Your task to perform on an android device: turn notification dots off Image 0: 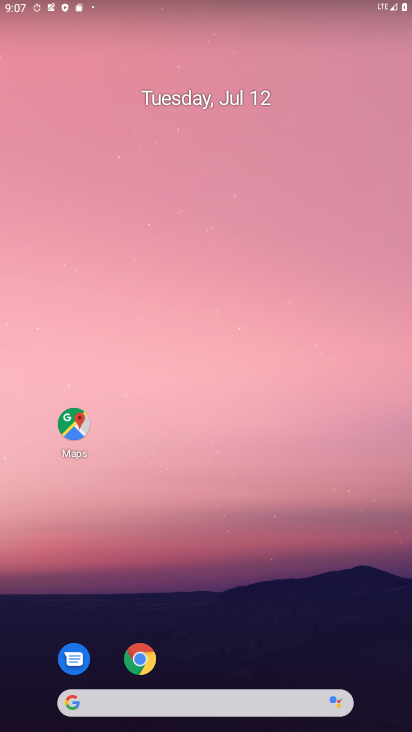
Step 0: drag from (373, 667) to (220, 101)
Your task to perform on an android device: turn notification dots off Image 1: 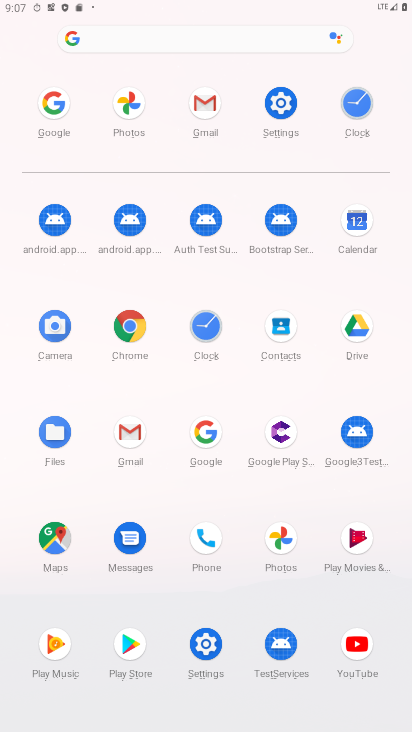
Step 1: click (196, 655)
Your task to perform on an android device: turn notification dots off Image 2: 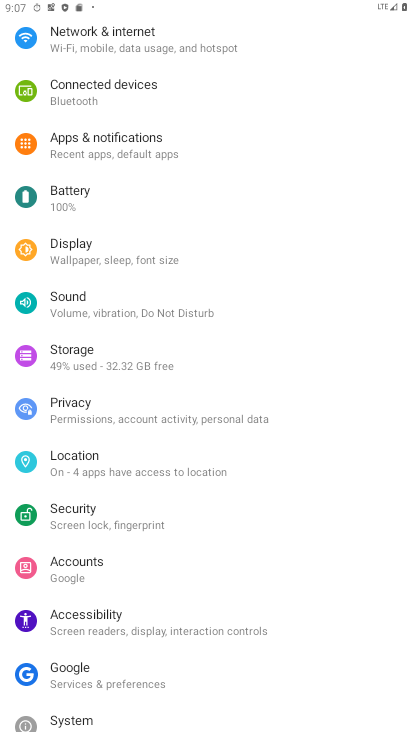
Step 2: click (151, 160)
Your task to perform on an android device: turn notification dots off Image 3: 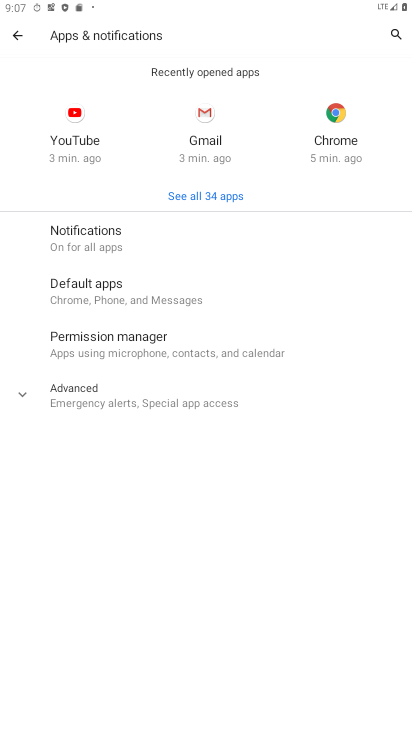
Step 3: click (117, 240)
Your task to perform on an android device: turn notification dots off Image 4: 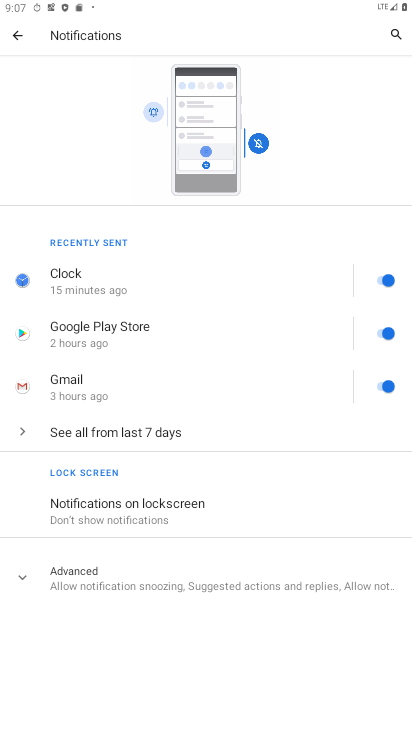
Step 4: click (74, 569)
Your task to perform on an android device: turn notification dots off Image 5: 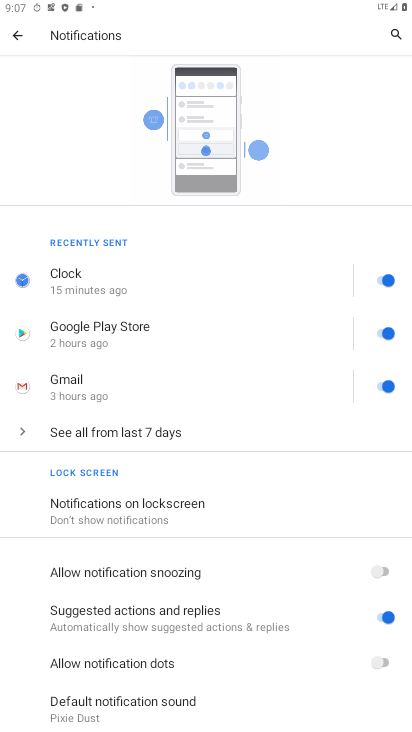
Step 5: task complete